Your task to perform on an android device: check data usage Image 0: 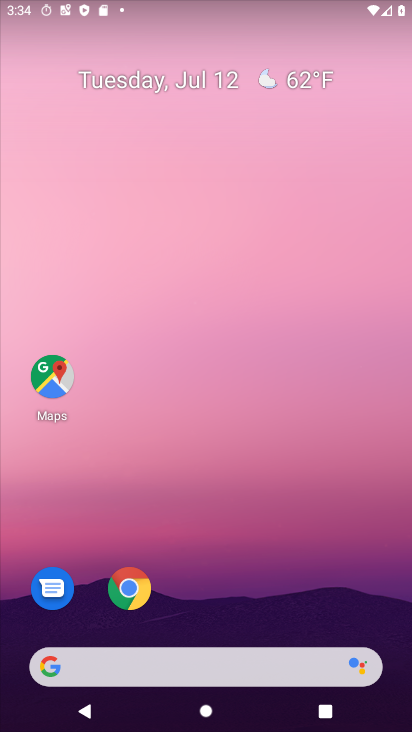
Step 0: drag from (238, 621) to (392, 15)
Your task to perform on an android device: check data usage Image 1: 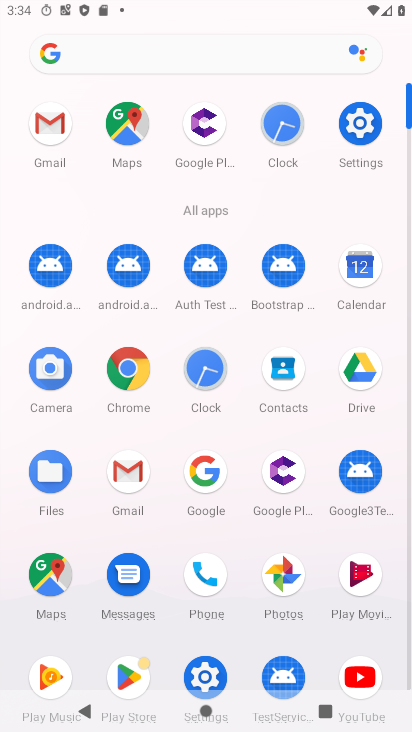
Step 1: click (364, 141)
Your task to perform on an android device: check data usage Image 2: 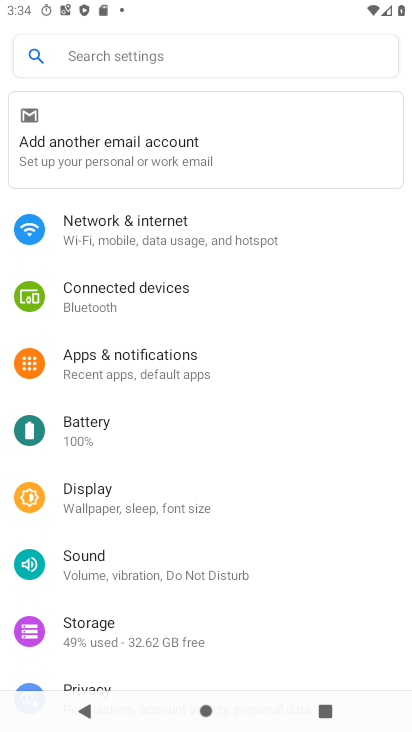
Step 2: click (195, 238)
Your task to perform on an android device: check data usage Image 3: 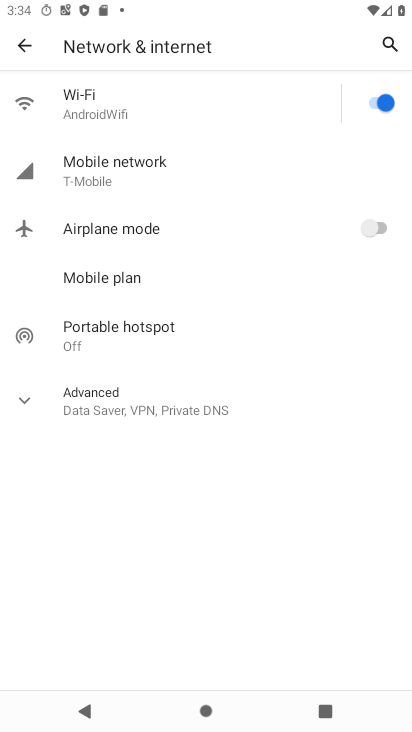
Step 3: click (117, 173)
Your task to perform on an android device: check data usage Image 4: 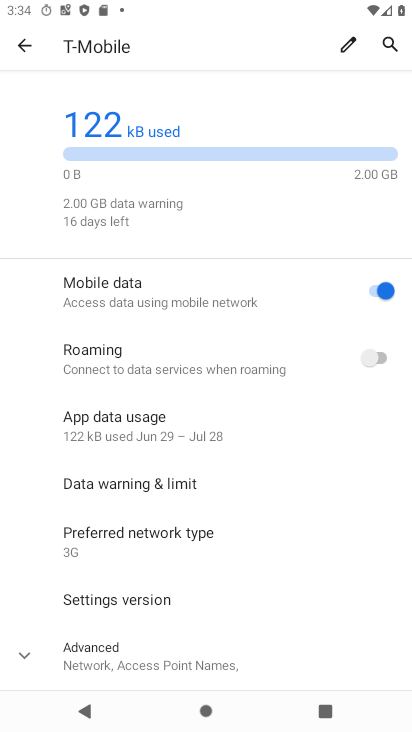
Step 4: click (140, 429)
Your task to perform on an android device: check data usage Image 5: 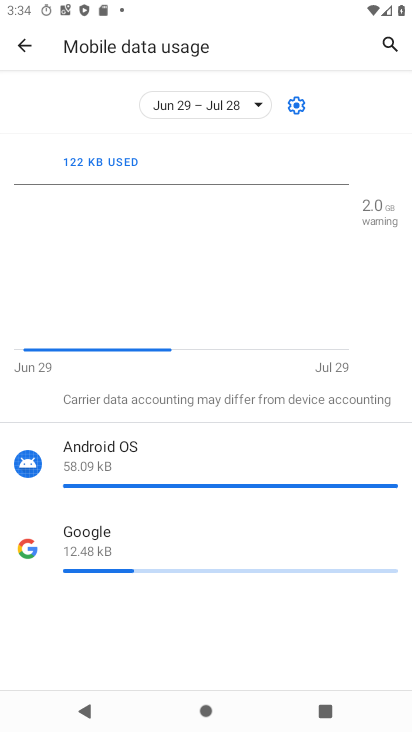
Step 5: task complete